Your task to perform on an android device: Open privacy settings Image 0: 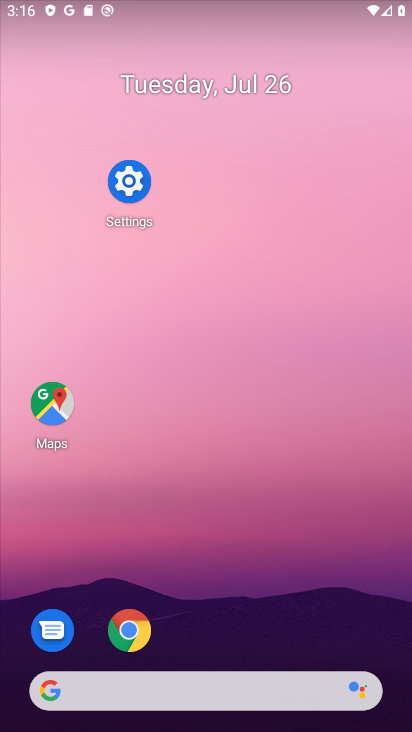
Step 0: click (125, 188)
Your task to perform on an android device: Open privacy settings Image 1: 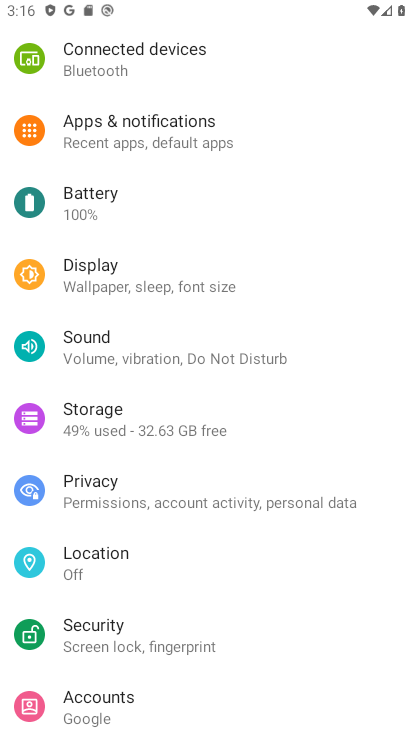
Step 1: click (151, 511)
Your task to perform on an android device: Open privacy settings Image 2: 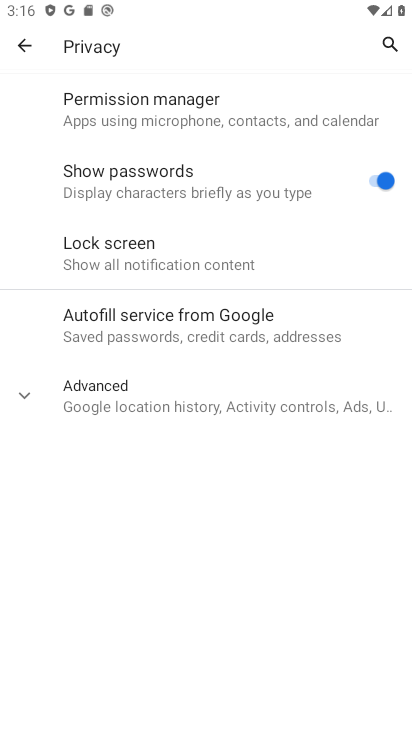
Step 2: task complete